Your task to perform on an android device: move a message to another label in the gmail app Image 0: 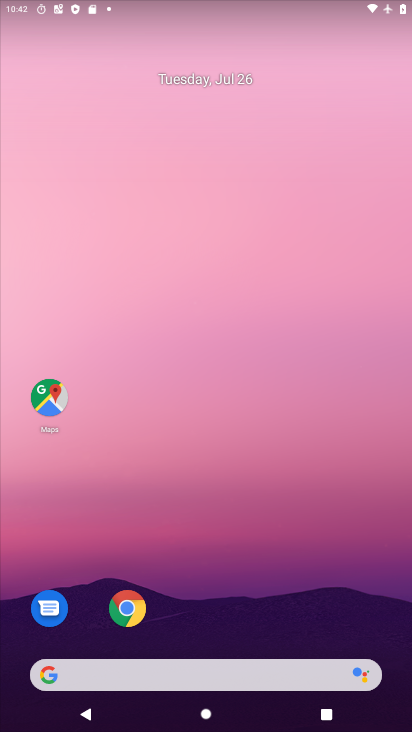
Step 0: drag from (189, 618) to (239, 156)
Your task to perform on an android device: move a message to another label in the gmail app Image 1: 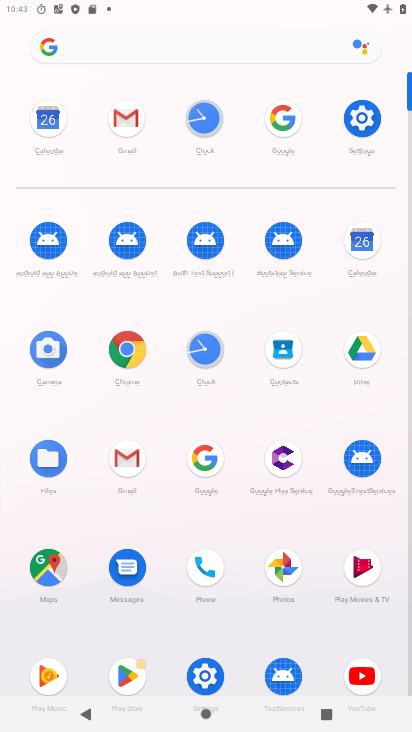
Step 1: click (130, 119)
Your task to perform on an android device: move a message to another label in the gmail app Image 2: 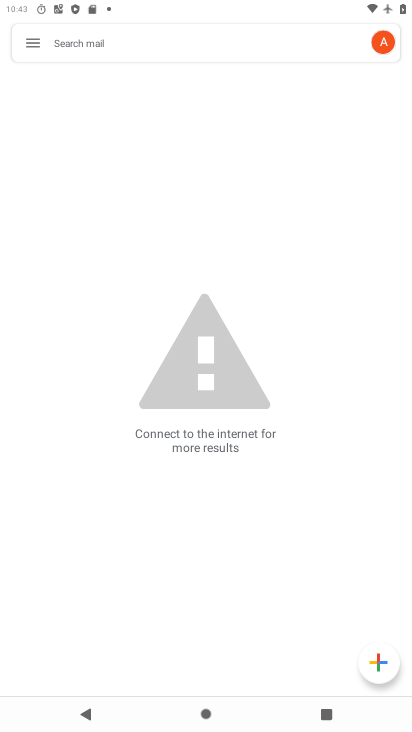
Step 2: click (24, 33)
Your task to perform on an android device: move a message to another label in the gmail app Image 3: 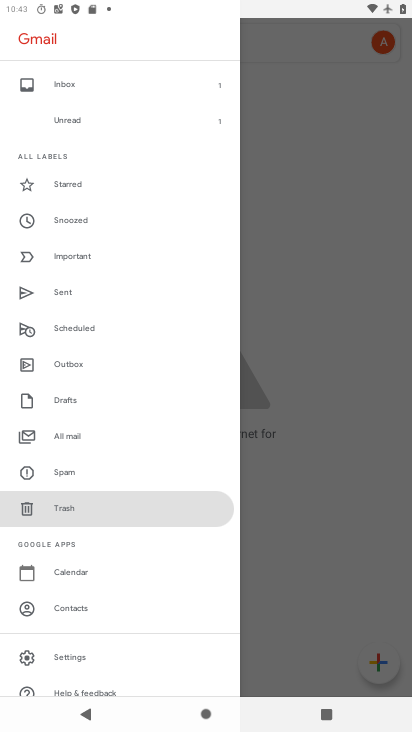
Step 3: click (81, 439)
Your task to perform on an android device: move a message to another label in the gmail app Image 4: 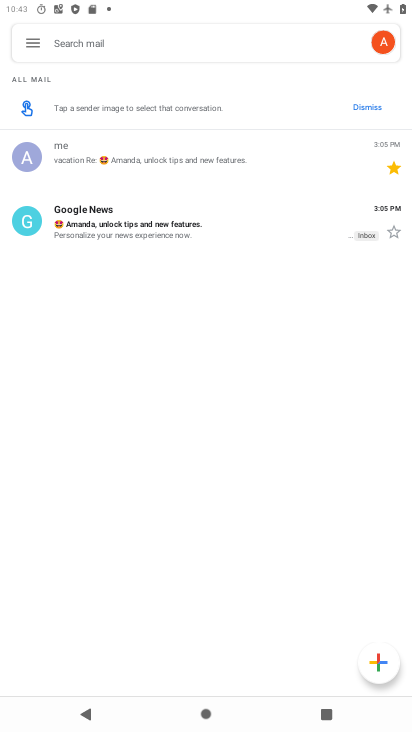
Step 4: click (206, 238)
Your task to perform on an android device: move a message to another label in the gmail app Image 5: 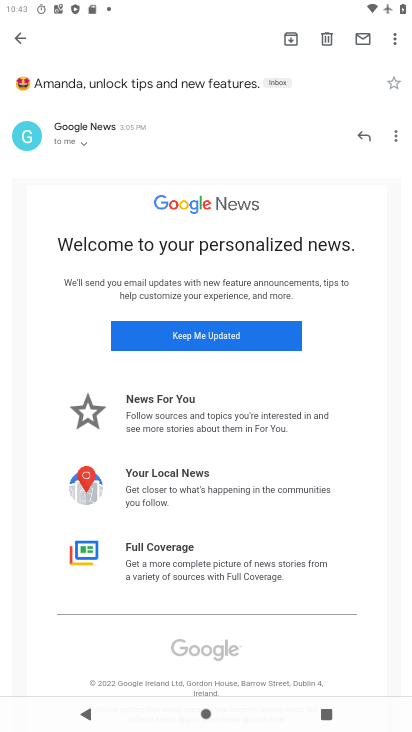
Step 5: click (393, 40)
Your task to perform on an android device: move a message to another label in the gmail app Image 6: 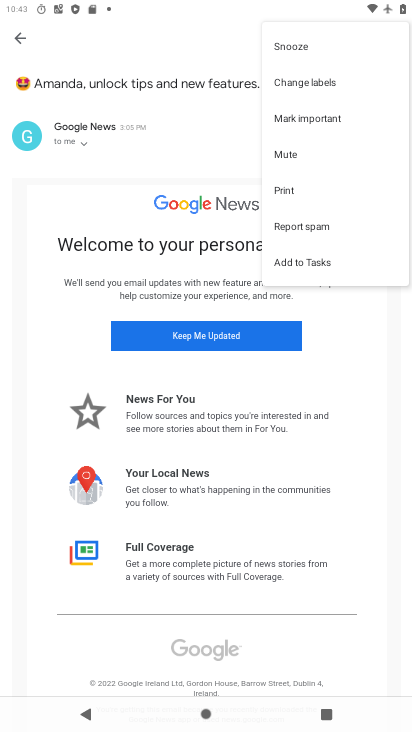
Step 6: click (338, 87)
Your task to perform on an android device: move a message to another label in the gmail app Image 7: 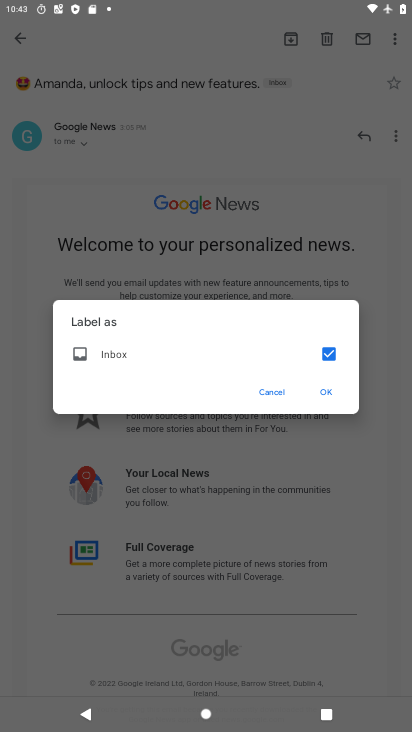
Step 7: click (332, 393)
Your task to perform on an android device: move a message to another label in the gmail app Image 8: 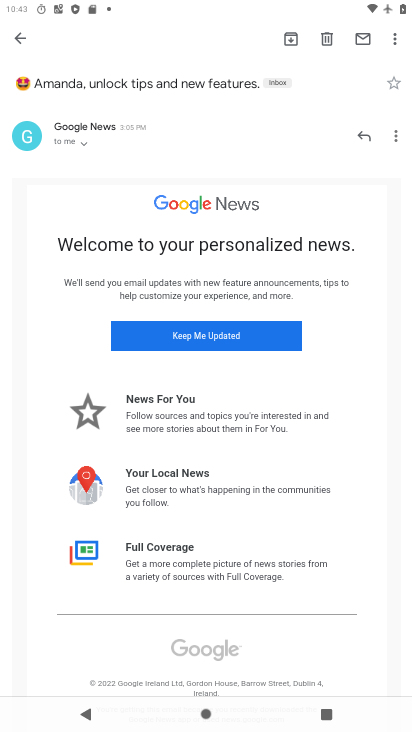
Step 8: task complete